Your task to perform on an android device: open a new tab in the chrome app Image 0: 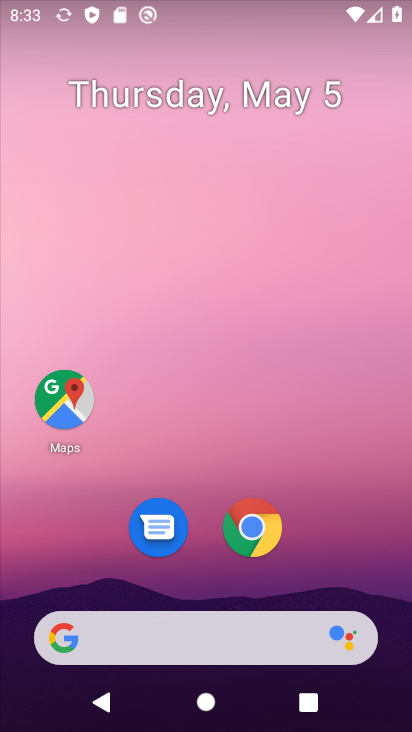
Step 0: drag from (344, 584) to (189, 11)
Your task to perform on an android device: open a new tab in the chrome app Image 1: 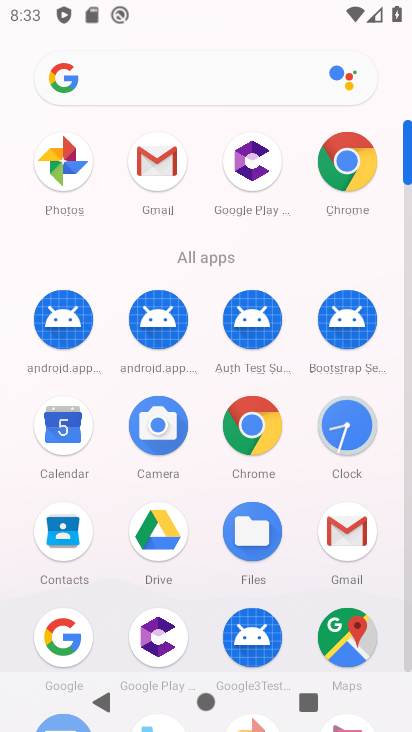
Step 1: click (341, 164)
Your task to perform on an android device: open a new tab in the chrome app Image 2: 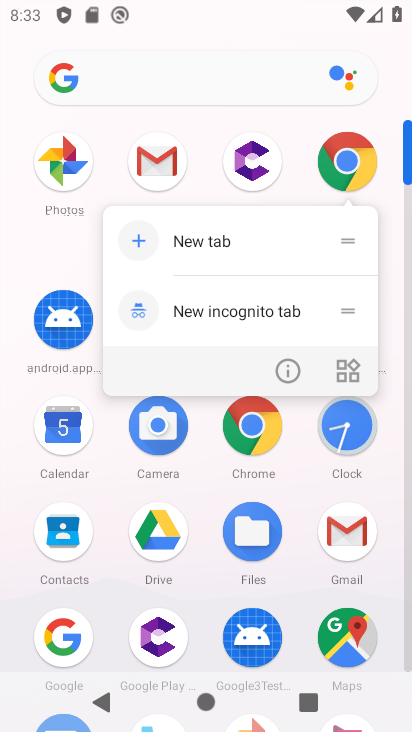
Step 2: click (201, 251)
Your task to perform on an android device: open a new tab in the chrome app Image 3: 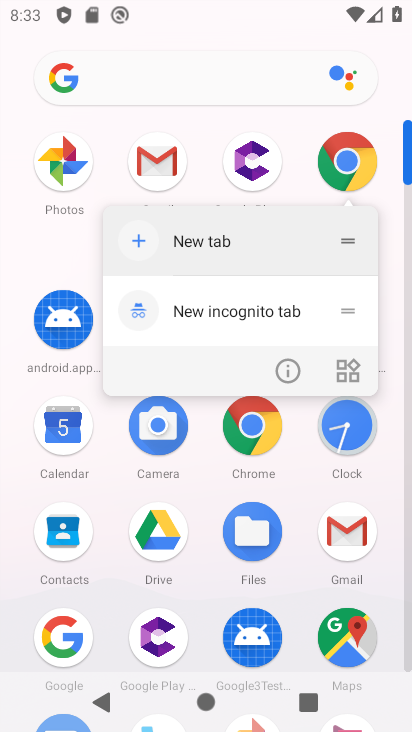
Step 3: click (207, 241)
Your task to perform on an android device: open a new tab in the chrome app Image 4: 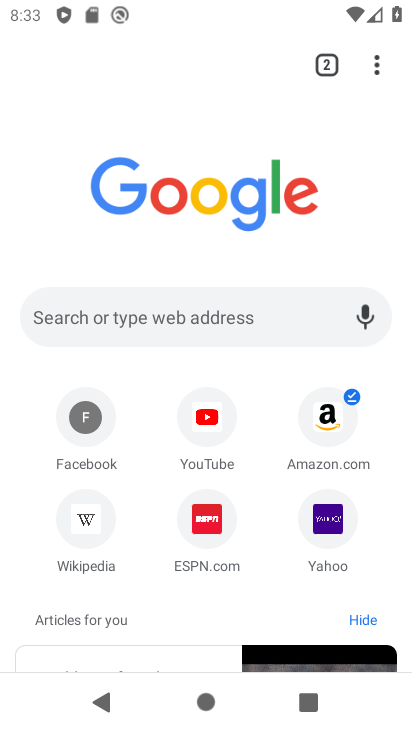
Step 4: click (147, 241)
Your task to perform on an android device: open a new tab in the chrome app Image 5: 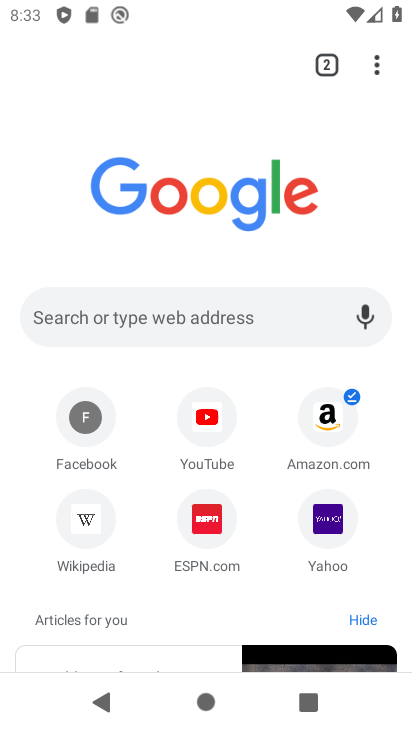
Step 5: task complete